Your task to perform on an android device: turn off translation in the chrome app Image 0: 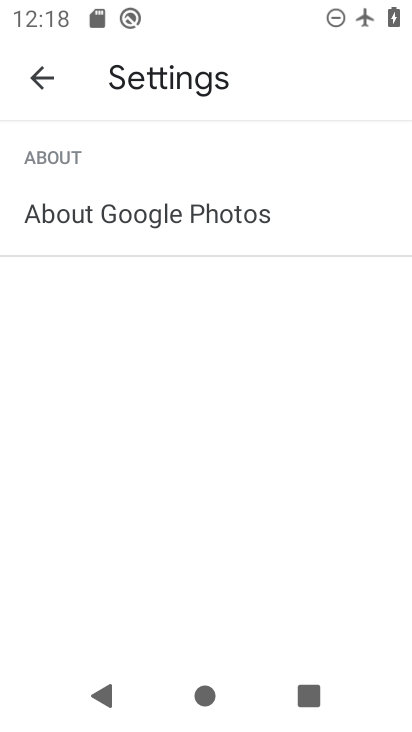
Step 0: press home button
Your task to perform on an android device: turn off translation in the chrome app Image 1: 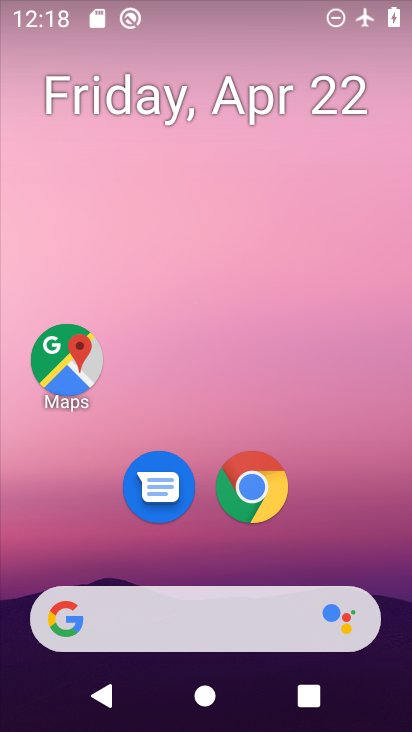
Step 1: drag from (334, 435) to (335, 277)
Your task to perform on an android device: turn off translation in the chrome app Image 2: 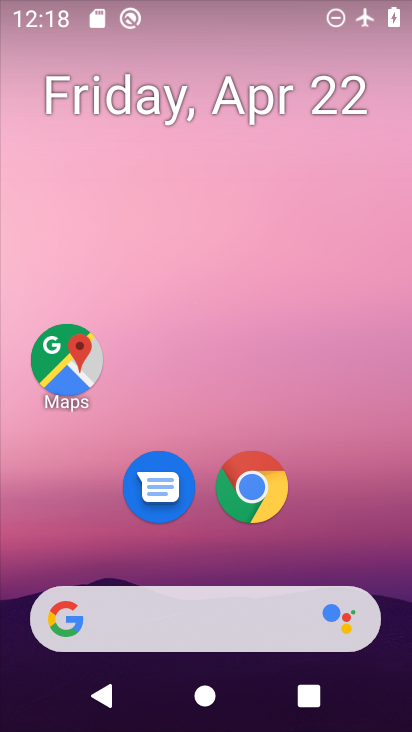
Step 2: drag from (308, 491) to (284, 202)
Your task to perform on an android device: turn off translation in the chrome app Image 3: 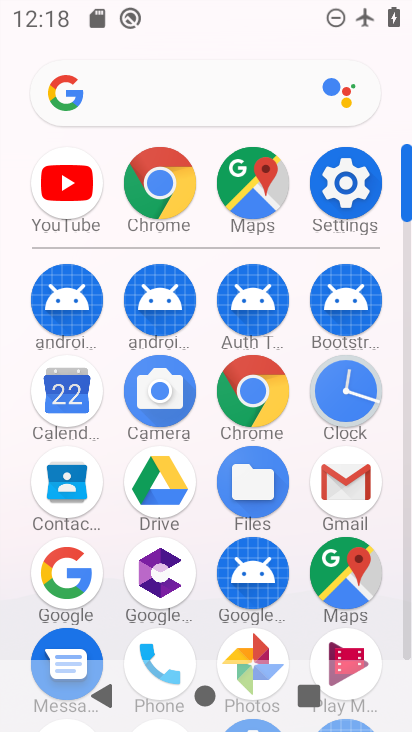
Step 3: click (156, 193)
Your task to perform on an android device: turn off translation in the chrome app Image 4: 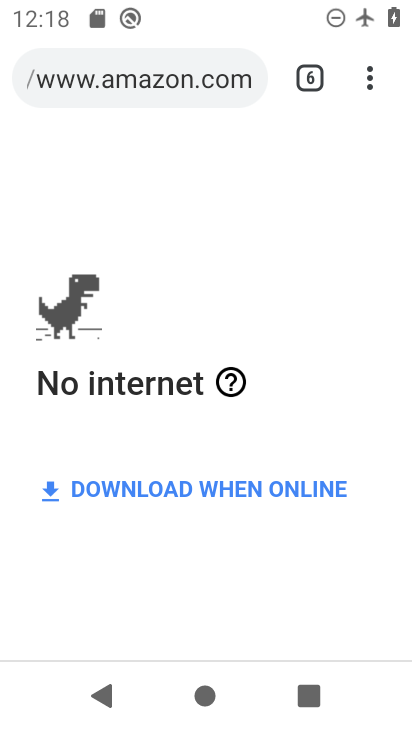
Step 4: click (352, 78)
Your task to perform on an android device: turn off translation in the chrome app Image 5: 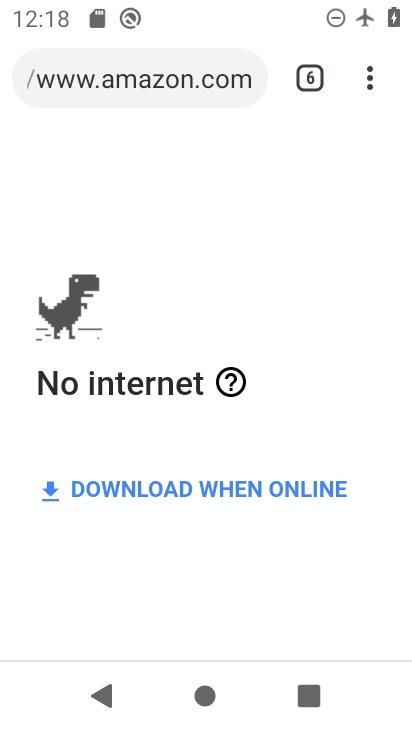
Step 5: click (356, 82)
Your task to perform on an android device: turn off translation in the chrome app Image 6: 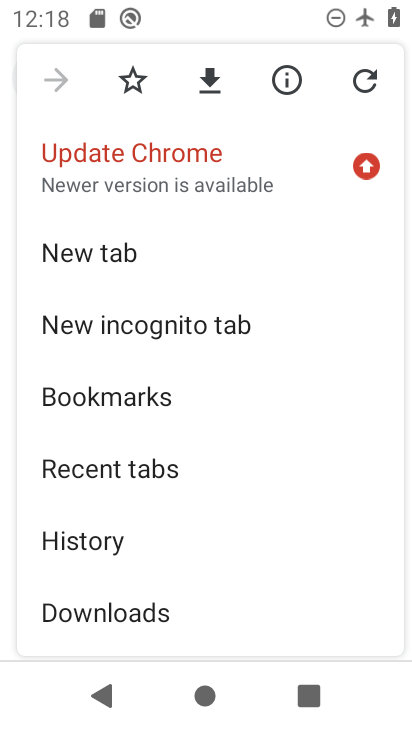
Step 6: drag from (256, 518) to (276, 163)
Your task to perform on an android device: turn off translation in the chrome app Image 7: 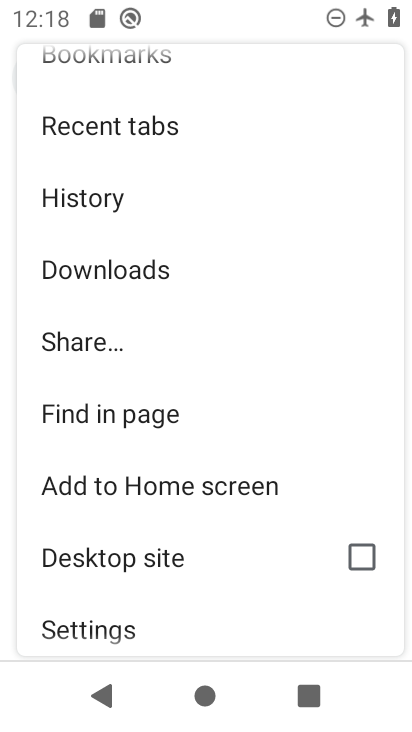
Step 7: click (119, 619)
Your task to perform on an android device: turn off translation in the chrome app Image 8: 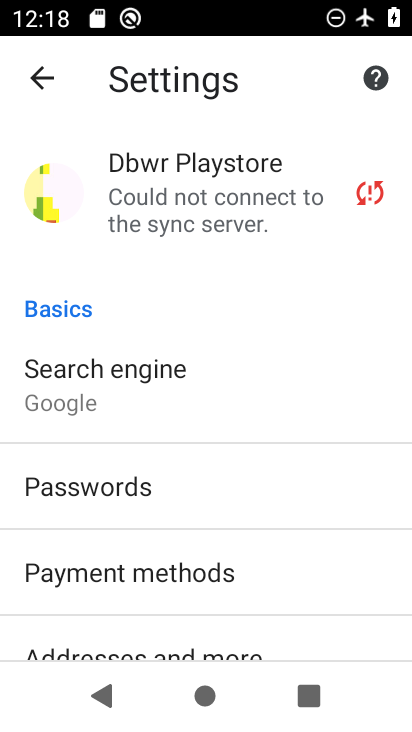
Step 8: drag from (104, 579) to (220, 164)
Your task to perform on an android device: turn off translation in the chrome app Image 9: 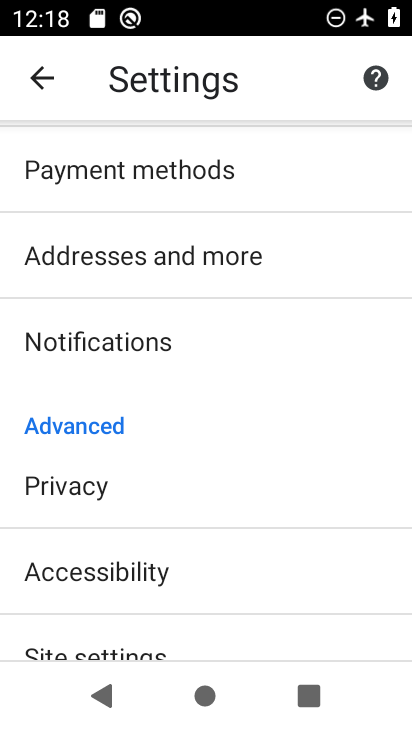
Step 9: drag from (149, 607) to (218, 152)
Your task to perform on an android device: turn off translation in the chrome app Image 10: 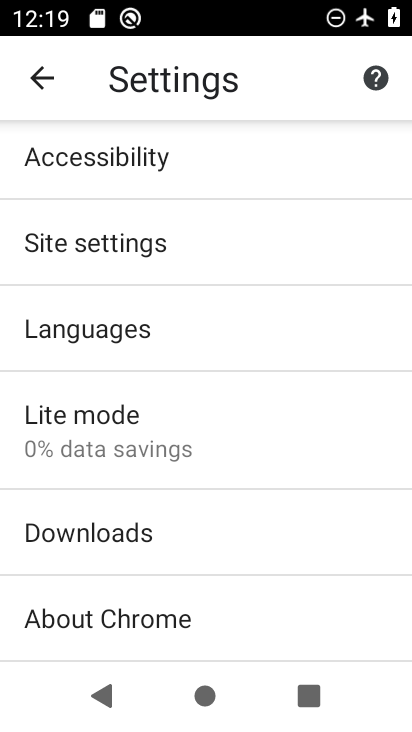
Step 10: drag from (197, 587) to (244, 216)
Your task to perform on an android device: turn off translation in the chrome app Image 11: 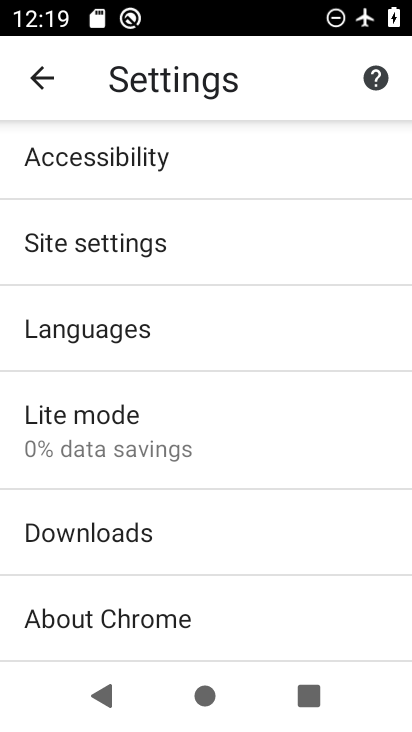
Step 11: drag from (149, 435) to (202, 312)
Your task to perform on an android device: turn off translation in the chrome app Image 12: 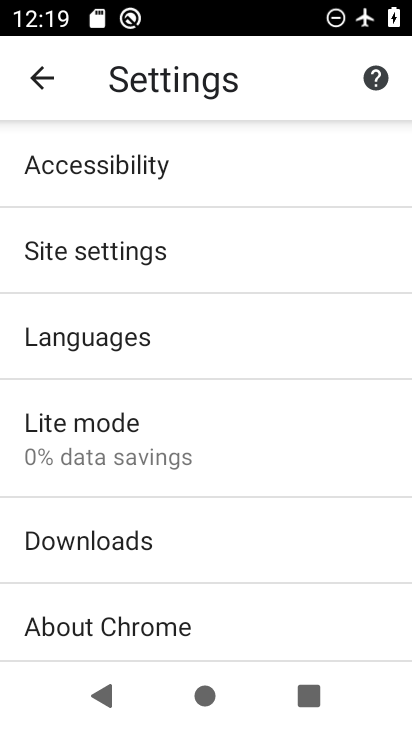
Step 12: click (202, 312)
Your task to perform on an android device: turn off translation in the chrome app Image 13: 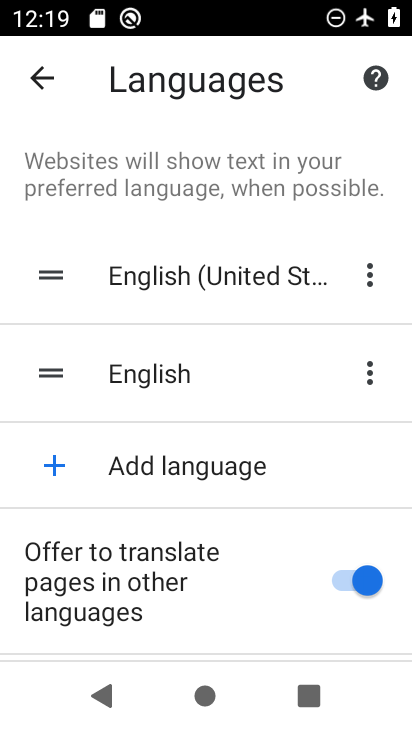
Step 13: click (337, 586)
Your task to perform on an android device: turn off translation in the chrome app Image 14: 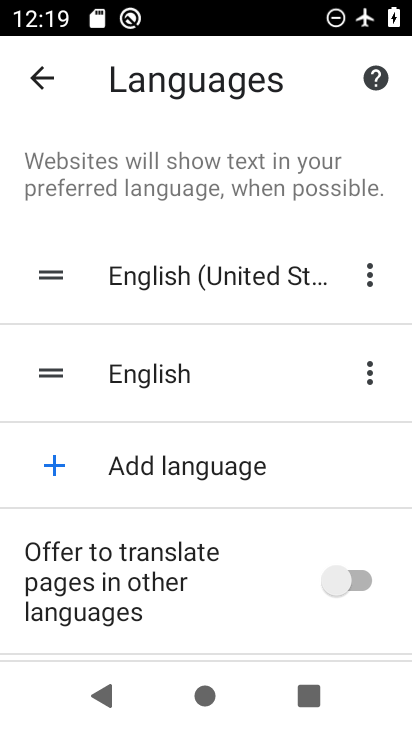
Step 14: task complete